Your task to perform on an android device: stop showing notifications on the lock screen Image 0: 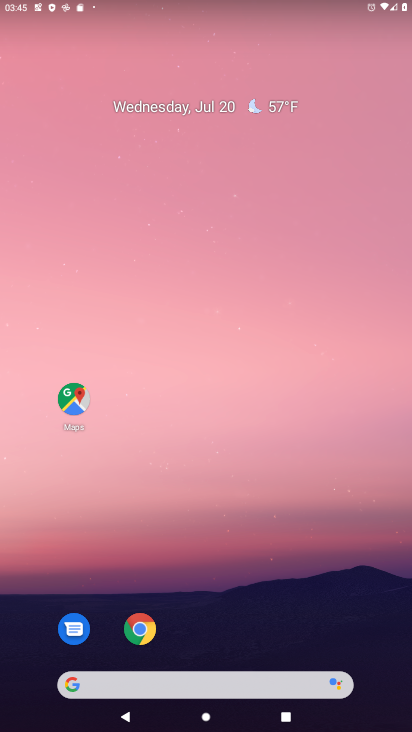
Step 0: drag from (385, 656) to (342, 62)
Your task to perform on an android device: stop showing notifications on the lock screen Image 1: 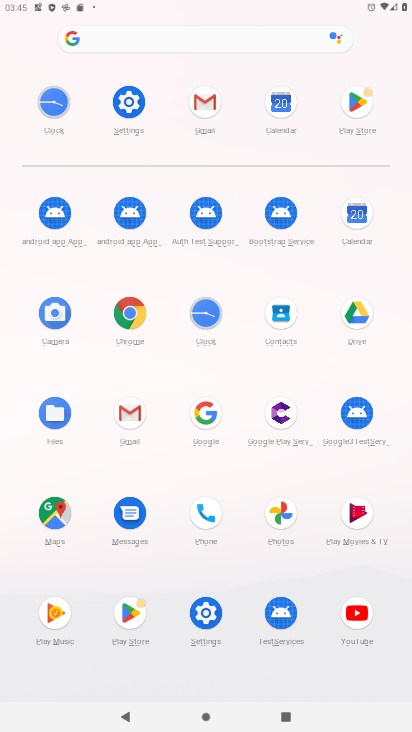
Step 1: click (207, 612)
Your task to perform on an android device: stop showing notifications on the lock screen Image 2: 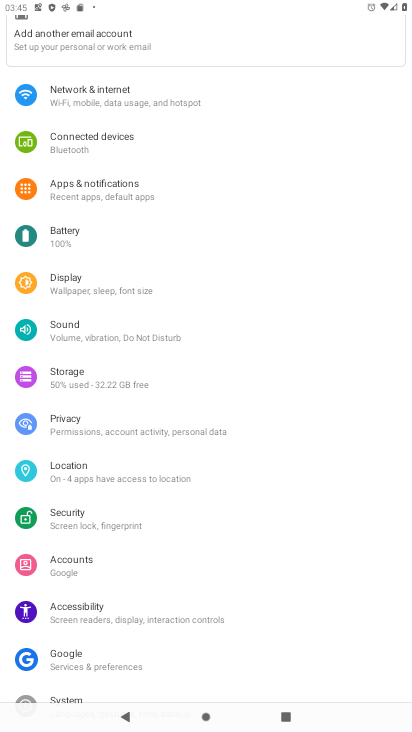
Step 2: click (96, 197)
Your task to perform on an android device: stop showing notifications on the lock screen Image 3: 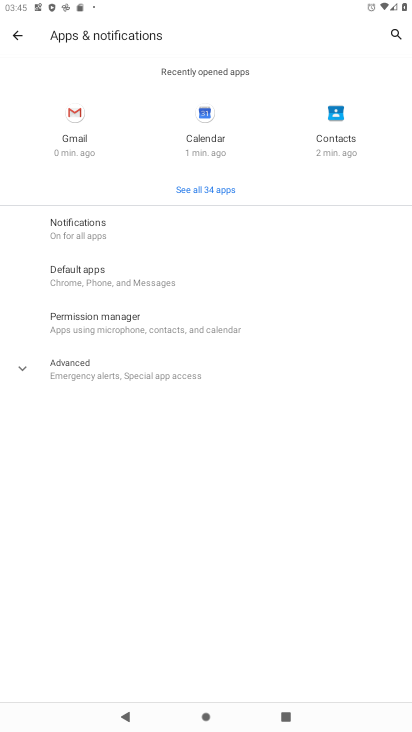
Step 3: click (90, 220)
Your task to perform on an android device: stop showing notifications on the lock screen Image 4: 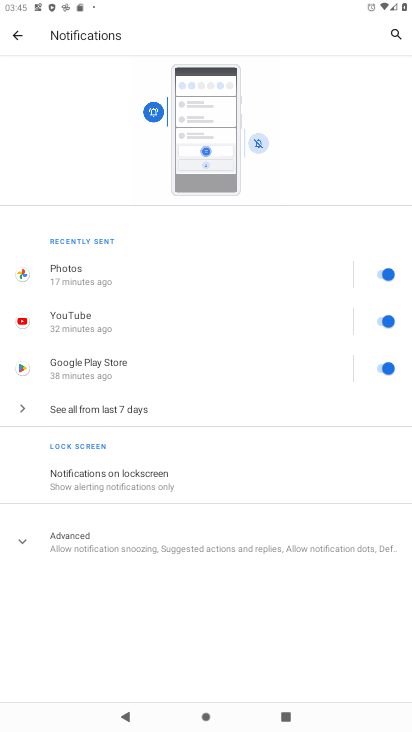
Step 4: click (18, 540)
Your task to perform on an android device: stop showing notifications on the lock screen Image 5: 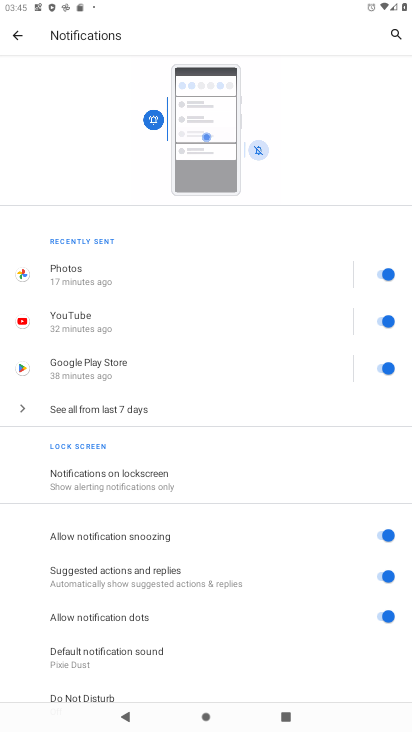
Step 5: click (126, 473)
Your task to perform on an android device: stop showing notifications on the lock screen Image 6: 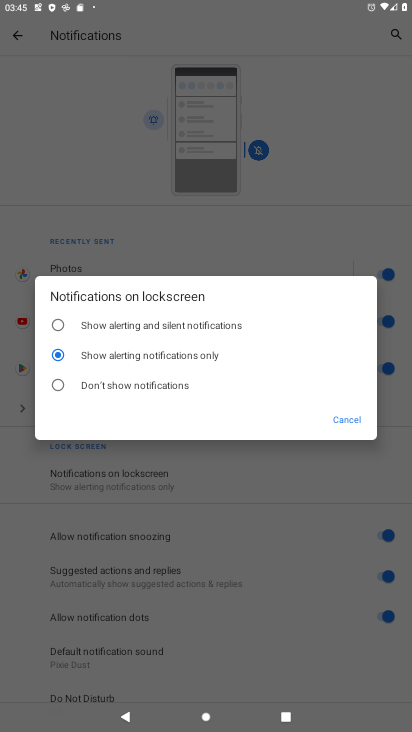
Step 6: click (56, 385)
Your task to perform on an android device: stop showing notifications on the lock screen Image 7: 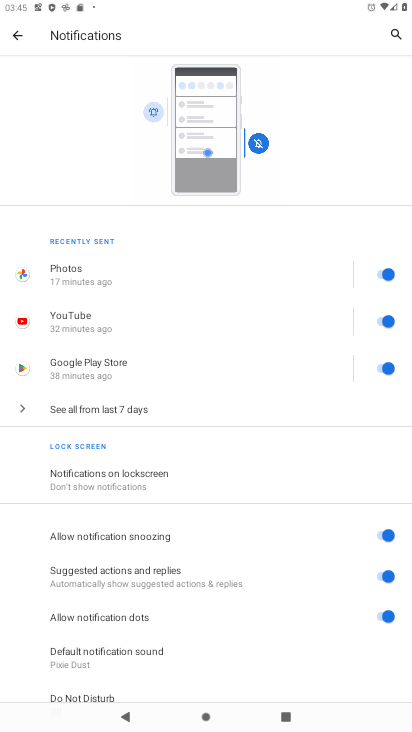
Step 7: task complete